Your task to perform on an android device: turn notification dots on Image 0: 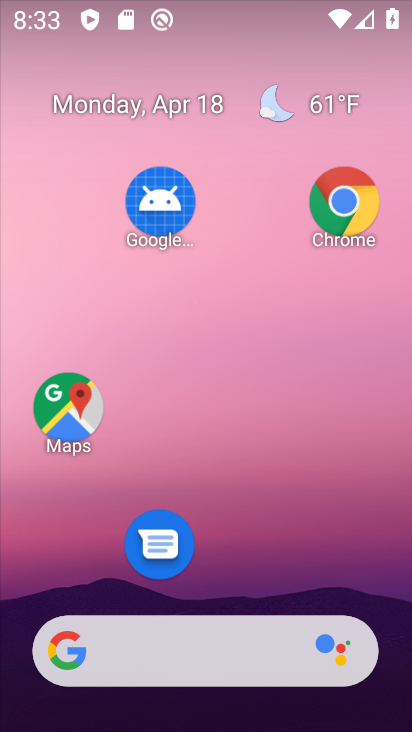
Step 0: drag from (223, 605) to (223, 3)
Your task to perform on an android device: turn notification dots on Image 1: 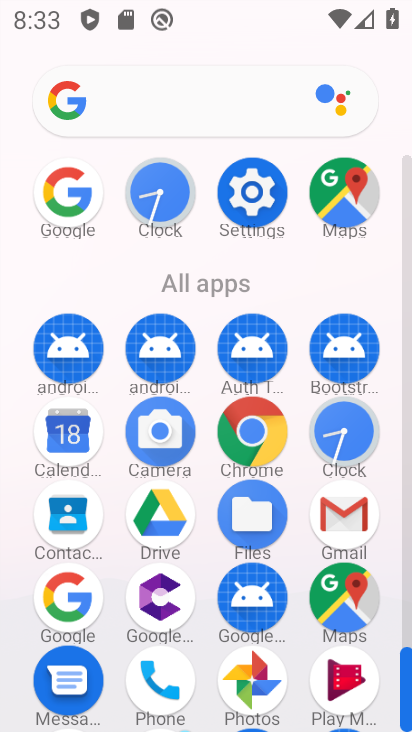
Step 1: click (243, 208)
Your task to perform on an android device: turn notification dots on Image 2: 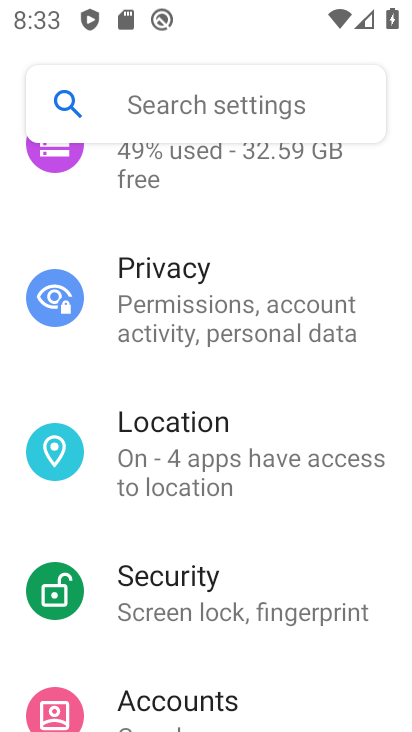
Step 2: drag from (281, 574) to (235, 154)
Your task to perform on an android device: turn notification dots on Image 3: 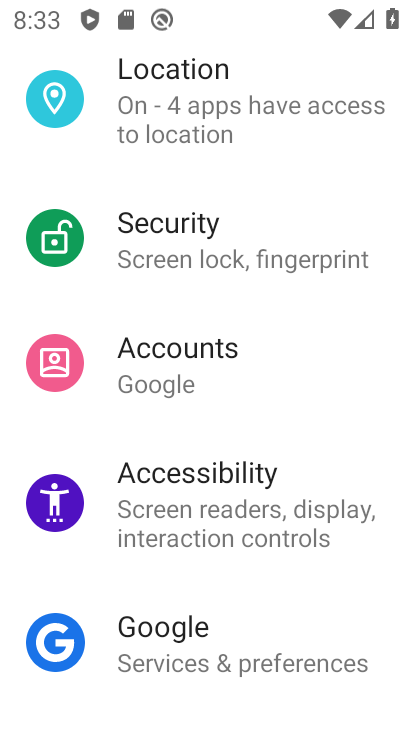
Step 3: drag from (236, 207) to (259, 731)
Your task to perform on an android device: turn notification dots on Image 4: 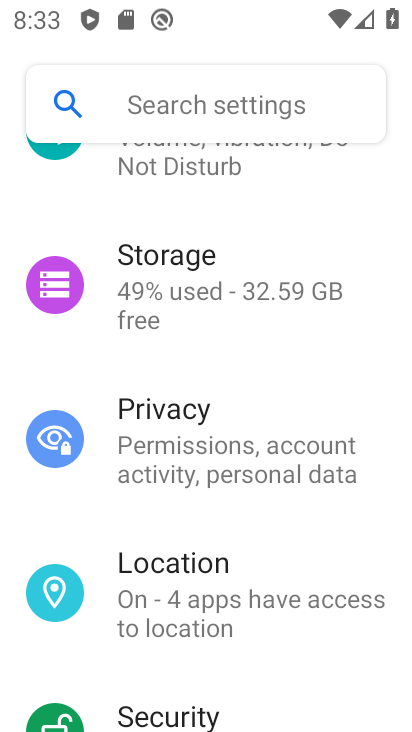
Step 4: drag from (263, 244) to (261, 717)
Your task to perform on an android device: turn notification dots on Image 5: 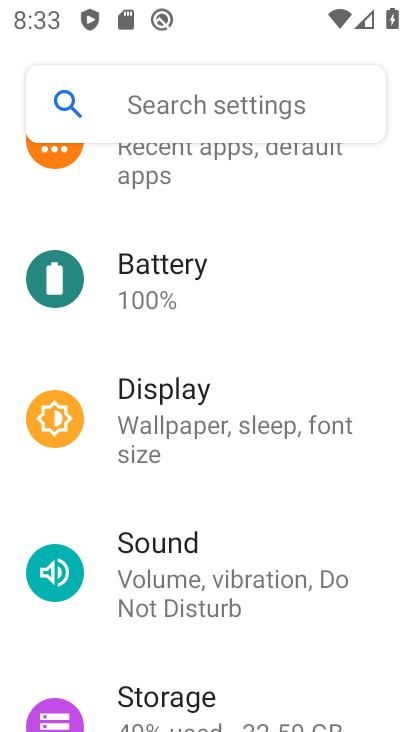
Step 5: drag from (253, 196) to (244, 679)
Your task to perform on an android device: turn notification dots on Image 6: 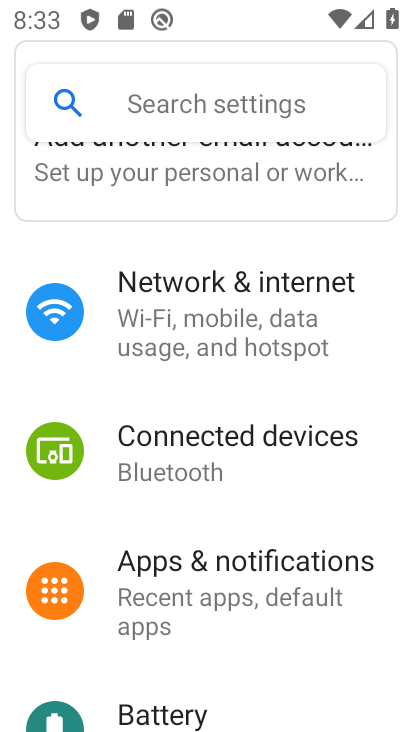
Step 6: click (238, 594)
Your task to perform on an android device: turn notification dots on Image 7: 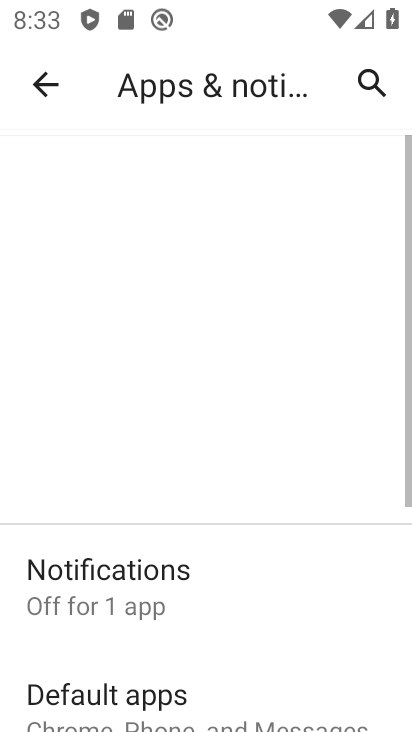
Step 7: click (195, 572)
Your task to perform on an android device: turn notification dots on Image 8: 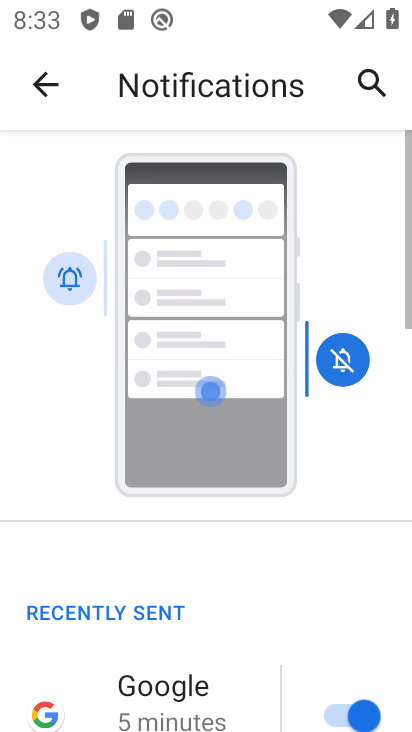
Step 8: drag from (228, 651) to (210, 66)
Your task to perform on an android device: turn notification dots on Image 9: 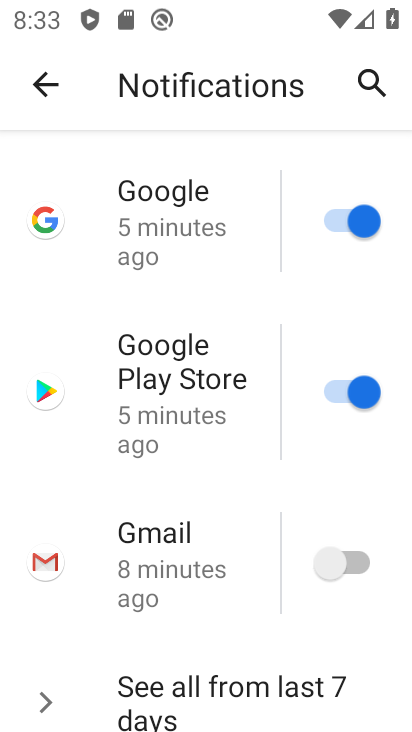
Step 9: drag from (229, 664) to (192, 104)
Your task to perform on an android device: turn notification dots on Image 10: 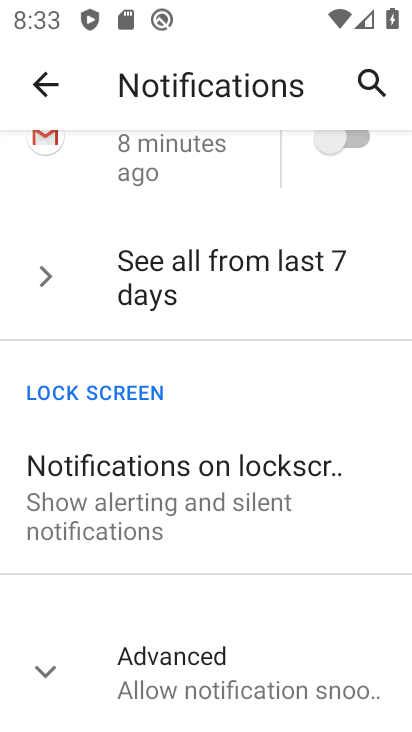
Step 10: click (206, 666)
Your task to perform on an android device: turn notification dots on Image 11: 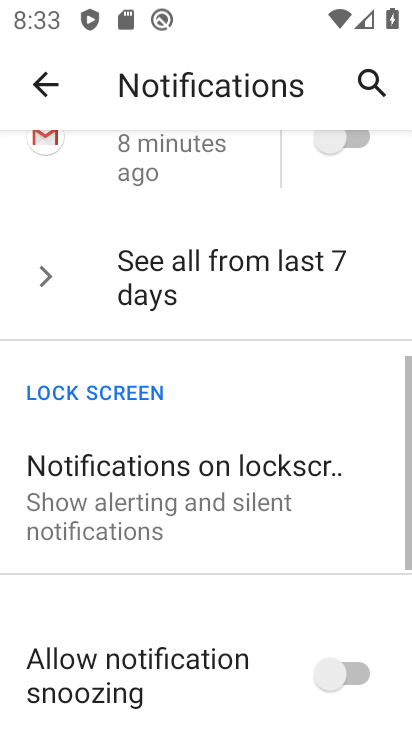
Step 11: task complete